Your task to perform on an android device: Open eBay Image 0: 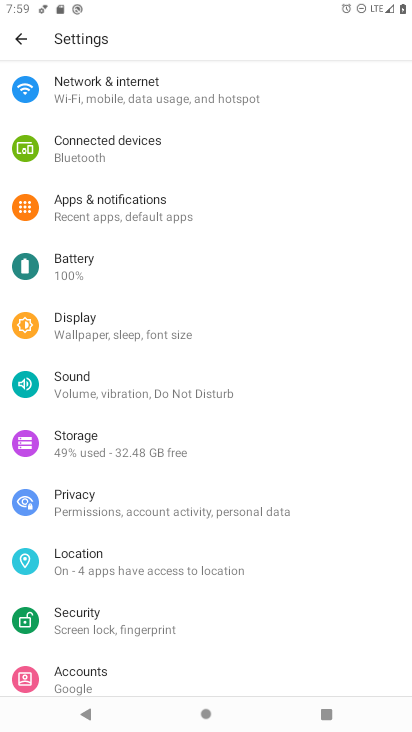
Step 0: press home button
Your task to perform on an android device: Open eBay Image 1: 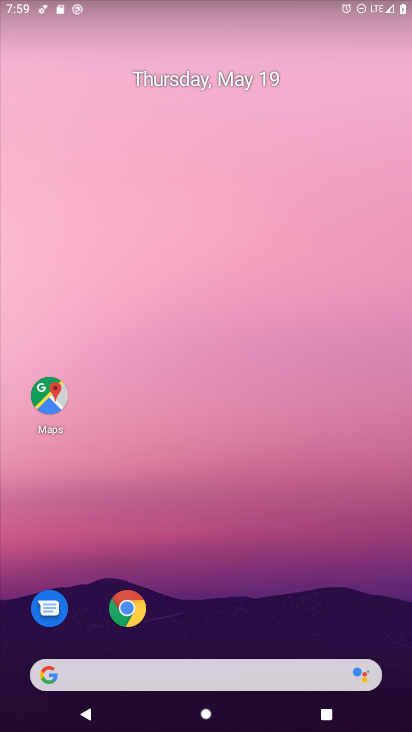
Step 1: click (123, 610)
Your task to perform on an android device: Open eBay Image 2: 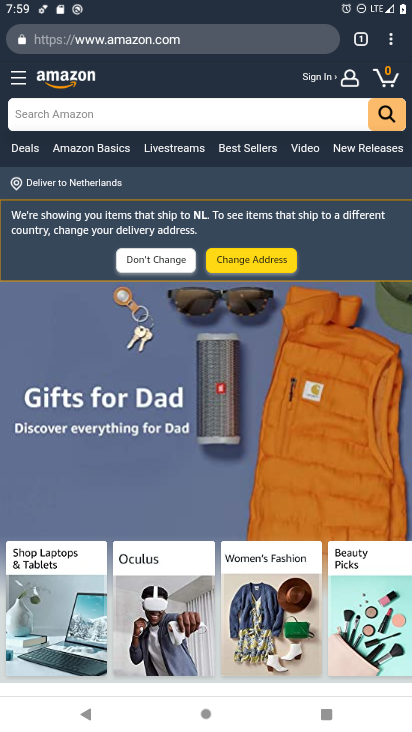
Step 2: click (193, 39)
Your task to perform on an android device: Open eBay Image 3: 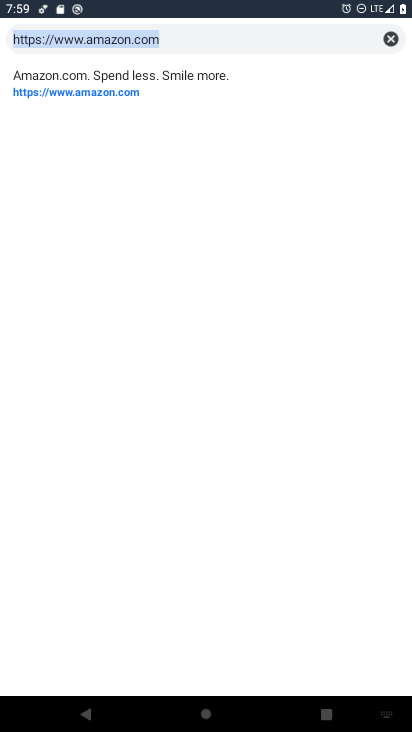
Step 3: click (384, 37)
Your task to perform on an android device: Open eBay Image 4: 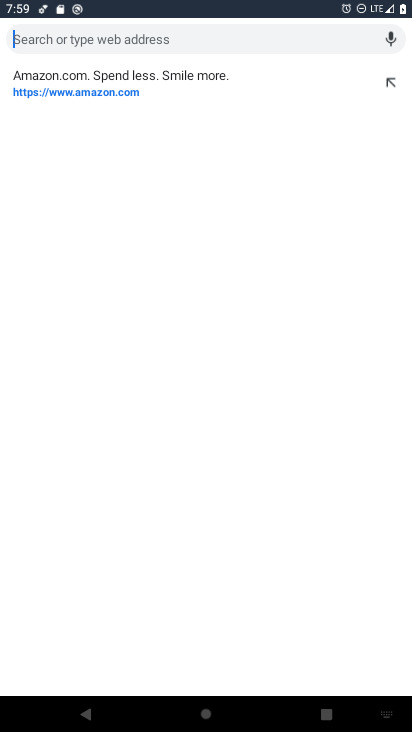
Step 4: type "eBay"
Your task to perform on an android device: Open eBay Image 5: 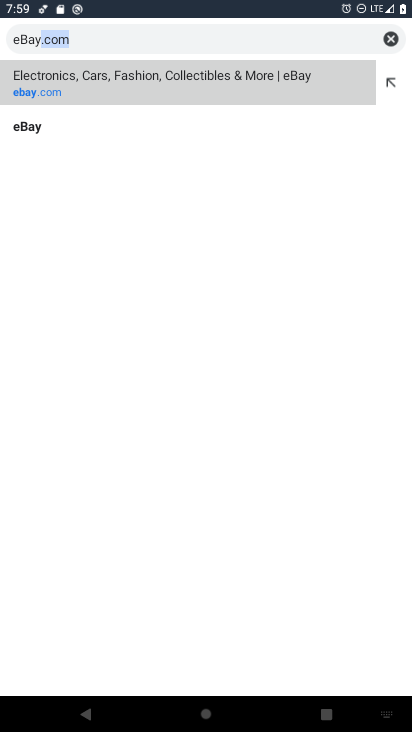
Step 5: click (22, 124)
Your task to perform on an android device: Open eBay Image 6: 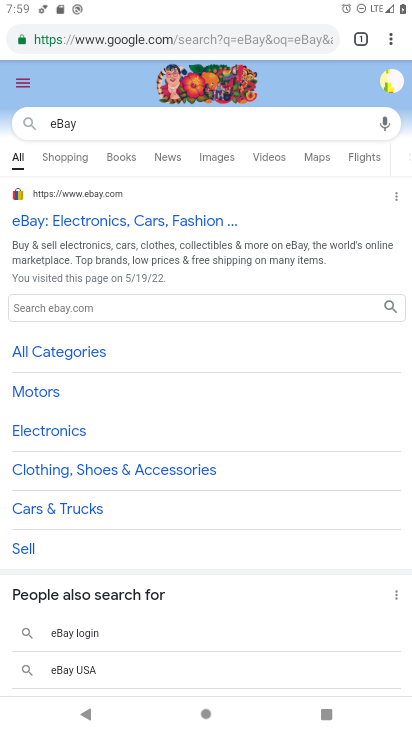
Step 6: task complete